Your task to perform on an android device: empty trash in google photos Image 0: 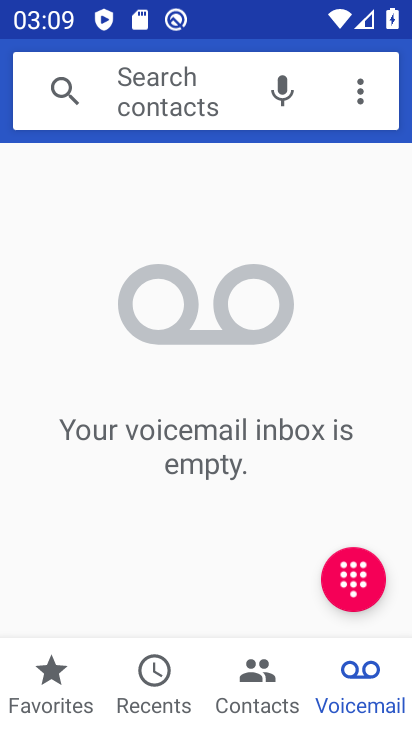
Step 0: press back button
Your task to perform on an android device: empty trash in google photos Image 1: 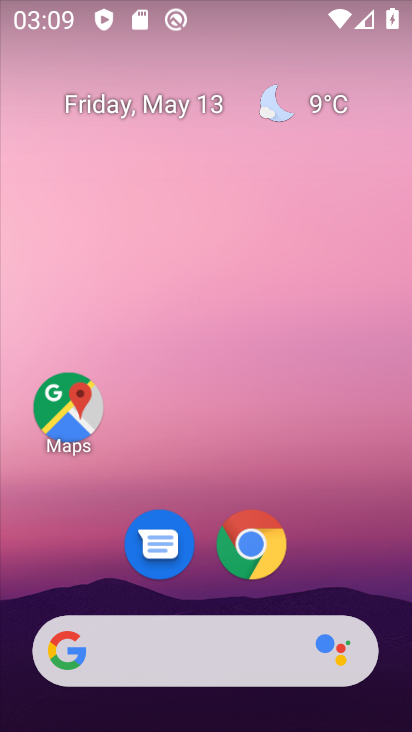
Step 1: drag from (337, 559) to (261, 0)
Your task to perform on an android device: empty trash in google photos Image 2: 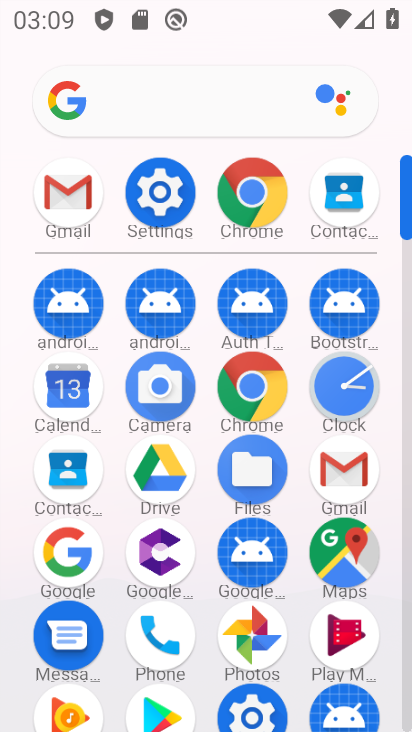
Step 2: drag from (15, 506) to (15, 267)
Your task to perform on an android device: empty trash in google photos Image 3: 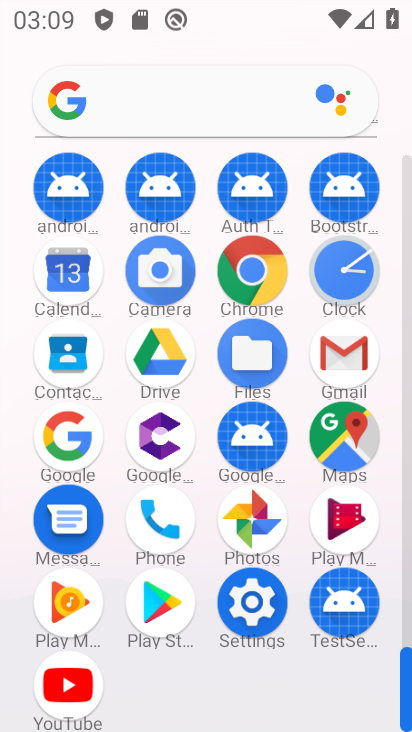
Step 3: click (250, 513)
Your task to perform on an android device: empty trash in google photos Image 4: 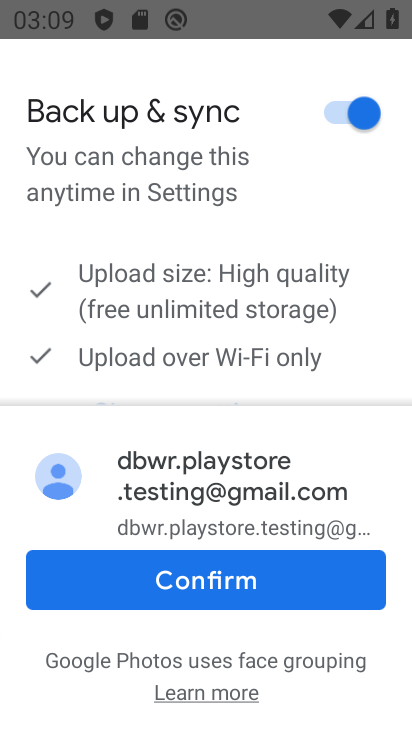
Step 4: click (190, 569)
Your task to perform on an android device: empty trash in google photos Image 5: 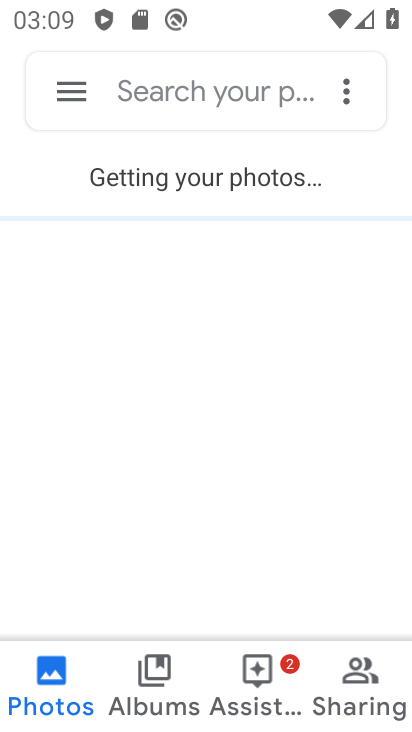
Step 5: click (68, 85)
Your task to perform on an android device: empty trash in google photos Image 6: 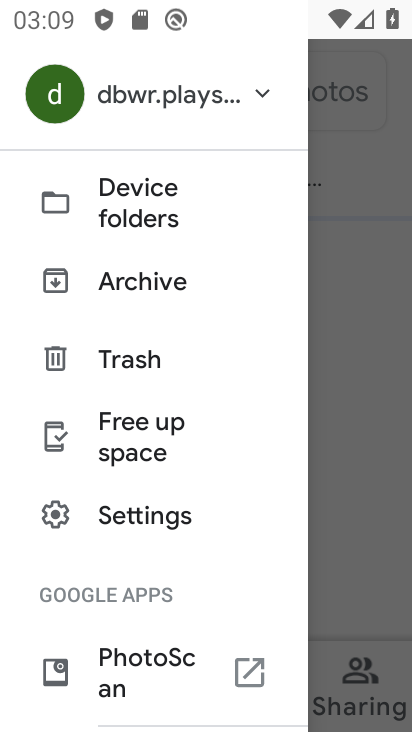
Step 6: click (145, 362)
Your task to perform on an android device: empty trash in google photos Image 7: 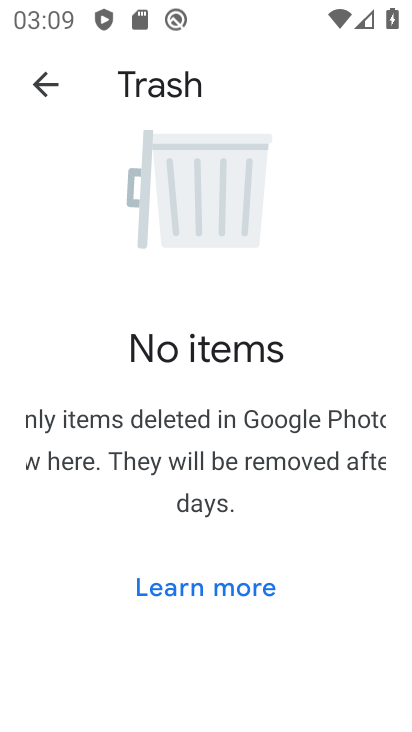
Step 7: task complete